Your task to perform on an android device: Open display settings Image 0: 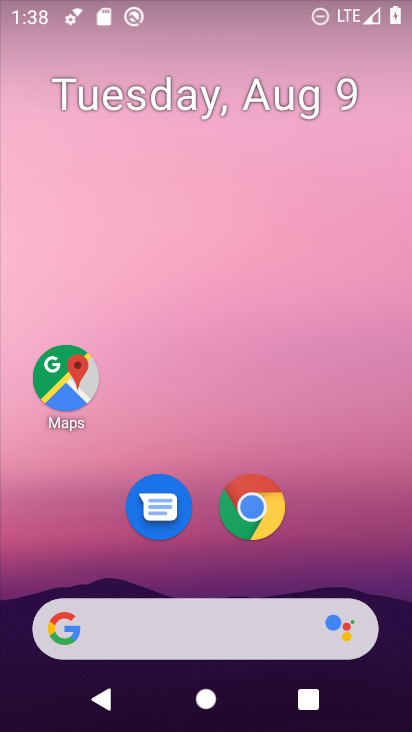
Step 0: drag from (234, 340) to (263, 133)
Your task to perform on an android device: Open display settings Image 1: 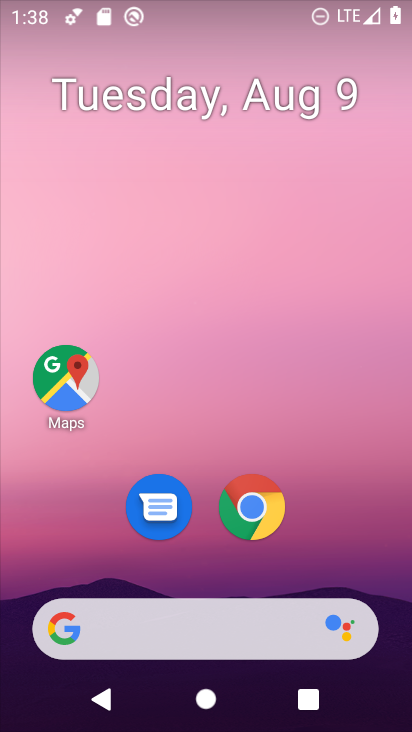
Step 1: drag from (171, 410) to (177, 151)
Your task to perform on an android device: Open display settings Image 2: 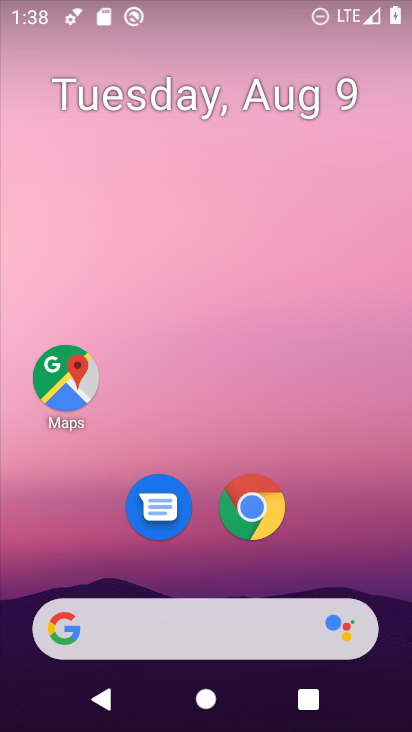
Step 2: drag from (226, 425) to (243, 36)
Your task to perform on an android device: Open display settings Image 3: 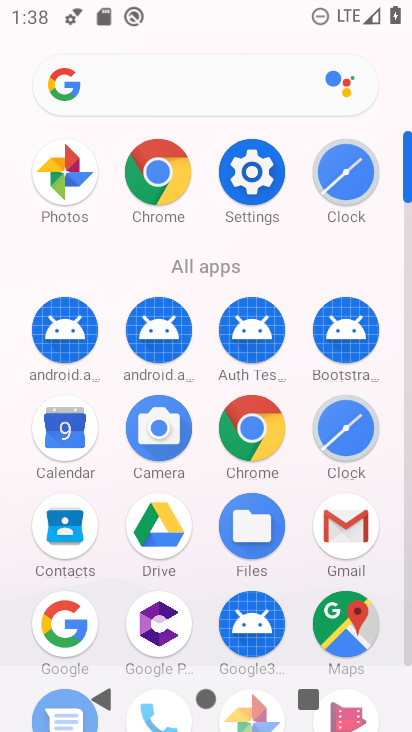
Step 3: click (266, 182)
Your task to perform on an android device: Open display settings Image 4: 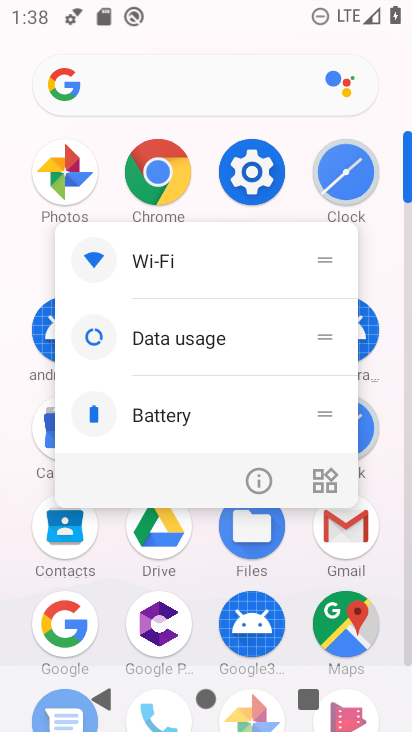
Step 4: click (218, 165)
Your task to perform on an android device: Open display settings Image 5: 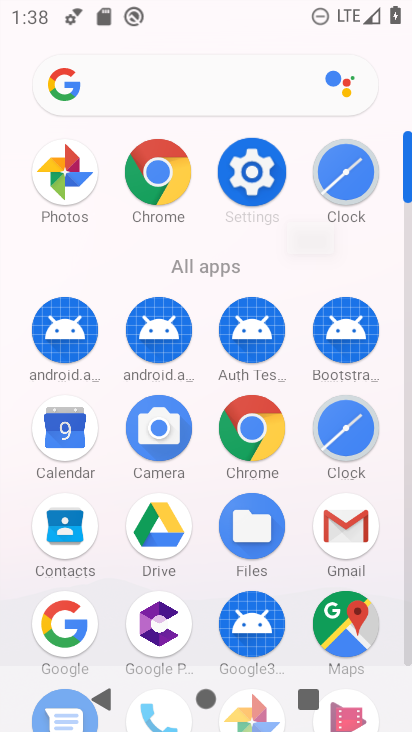
Step 5: task complete